Your task to perform on an android device: open app "Skype" Image 0: 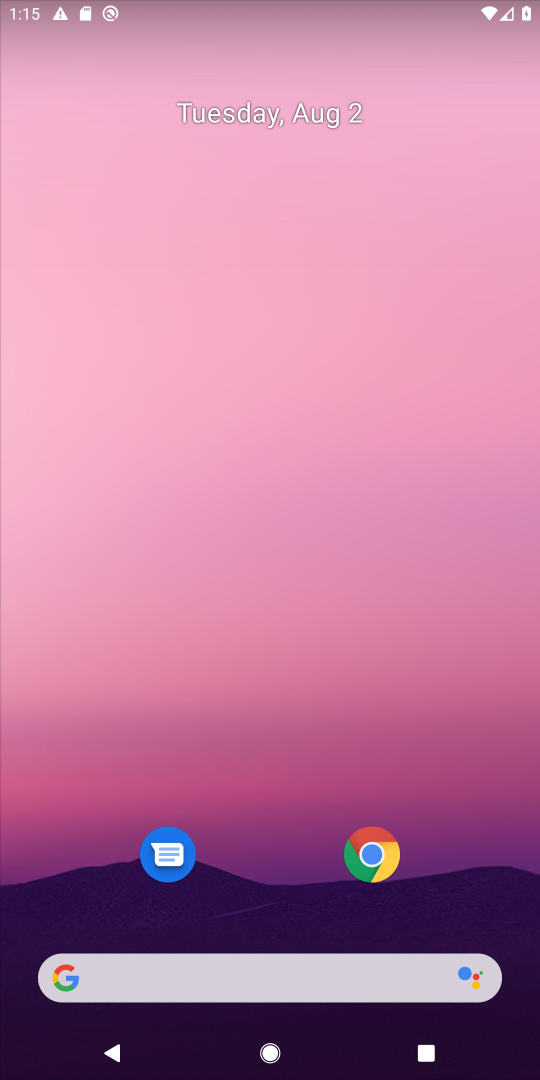
Step 0: drag from (320, 1058) to (406, 285)
Your task to perform on an android device: open app "Skype" Image 1: 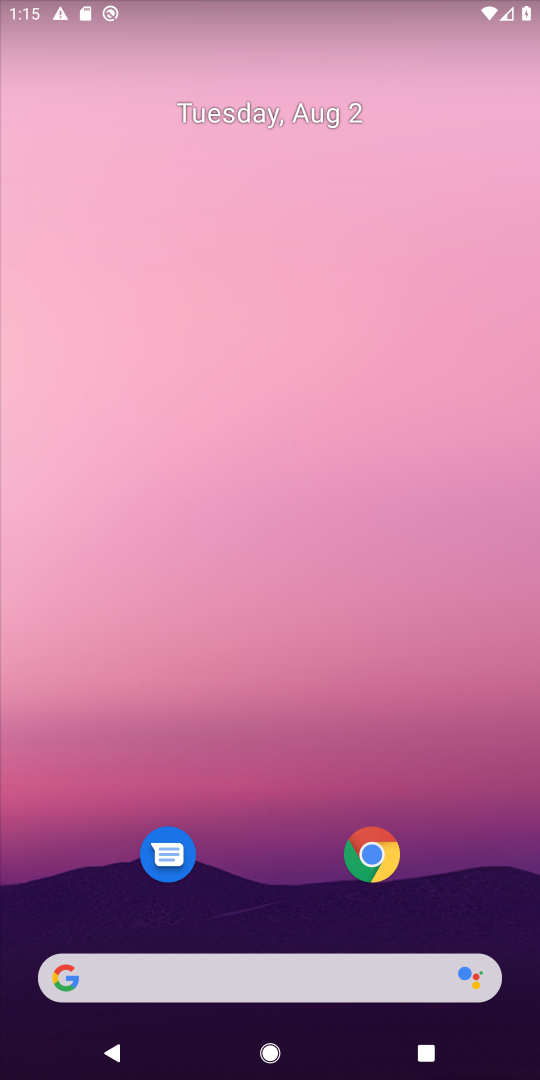
Step 1: drag from (307, 1061) to (337, 193)
Your task to perform on an android device: open app "Skype" Image 2: 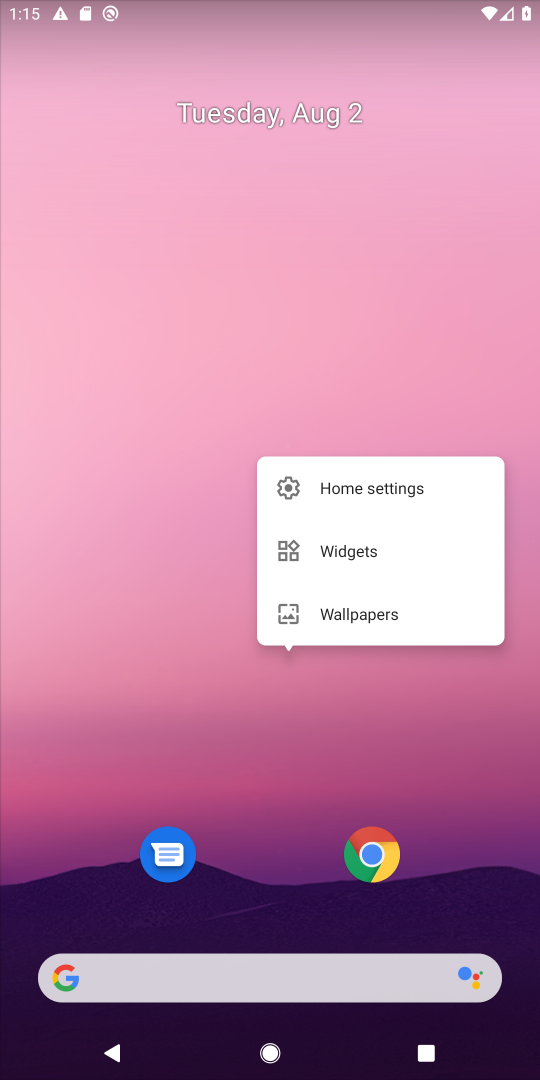
Step 2: click (296, 270)
Your task to perform on an android device: open app "Skype" Image 3: 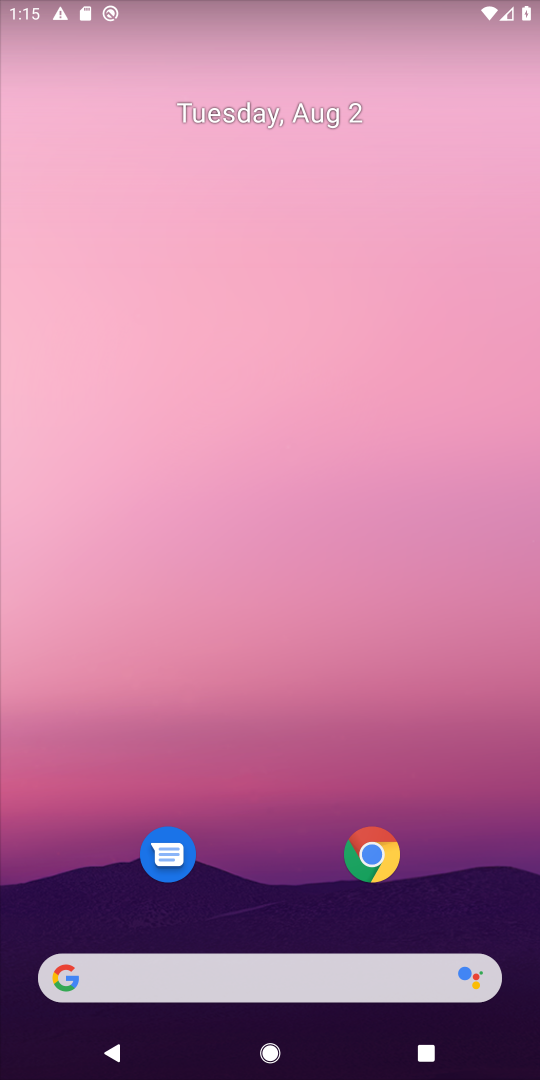
Step 3: drag from (316, 921) to (321, 18)
Your task to perform on an android device: open app "Skype" Image 4: 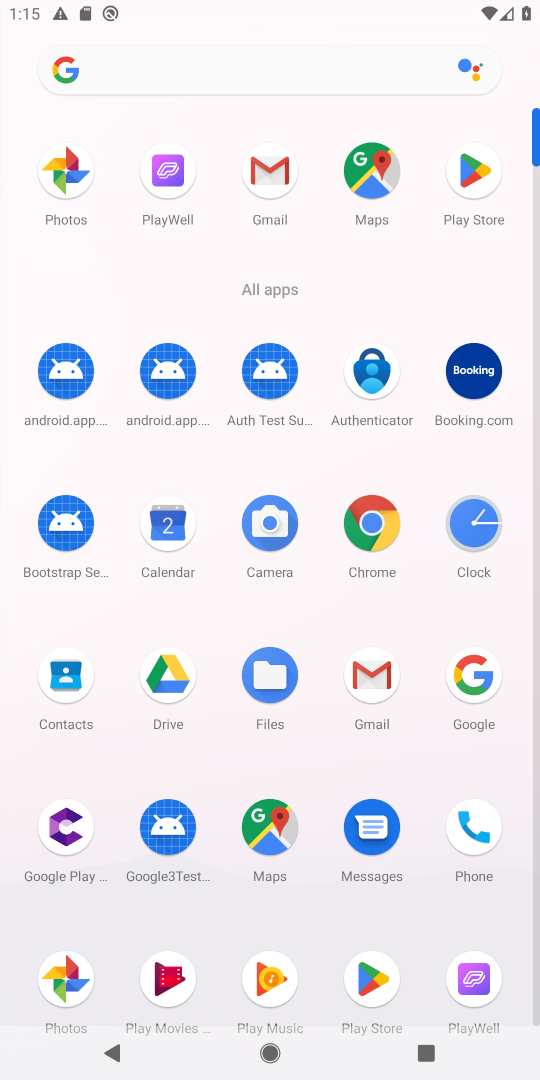
Step 4: click (473, 173)
Your task to perform on an android device: open app "Skype" Image 5: 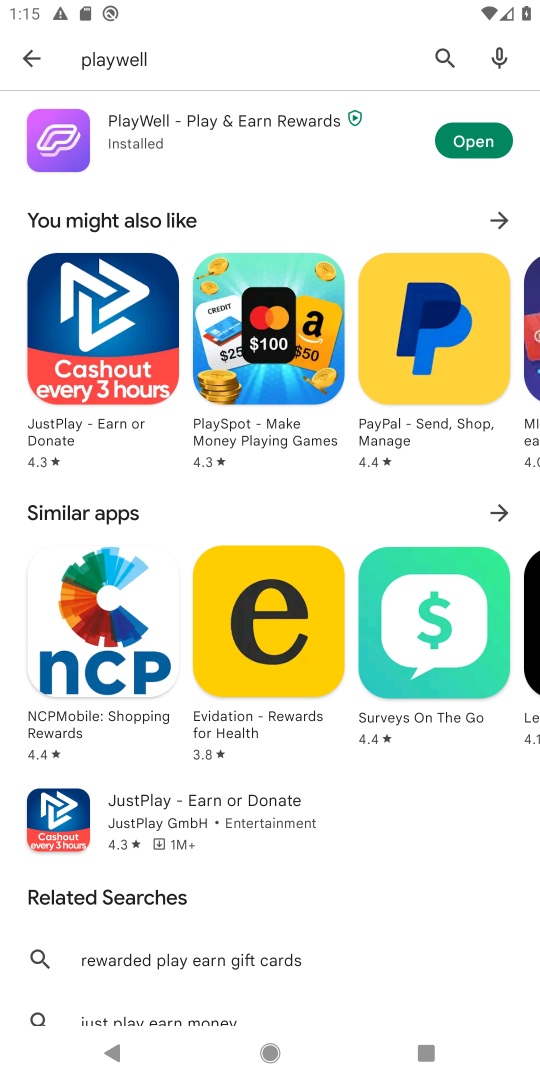
Step 5: click (437, 57)
Your task to perform on an android device: open app "Skype" Image 6: 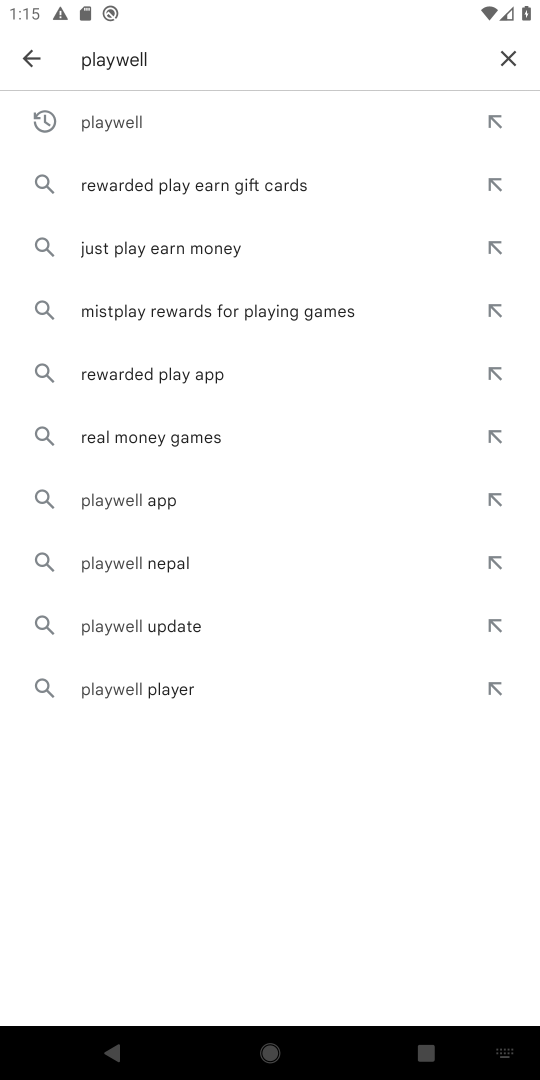
Step 6: click (507, 48)
Your task to perform on an android device: open app "Skype" Image 7: 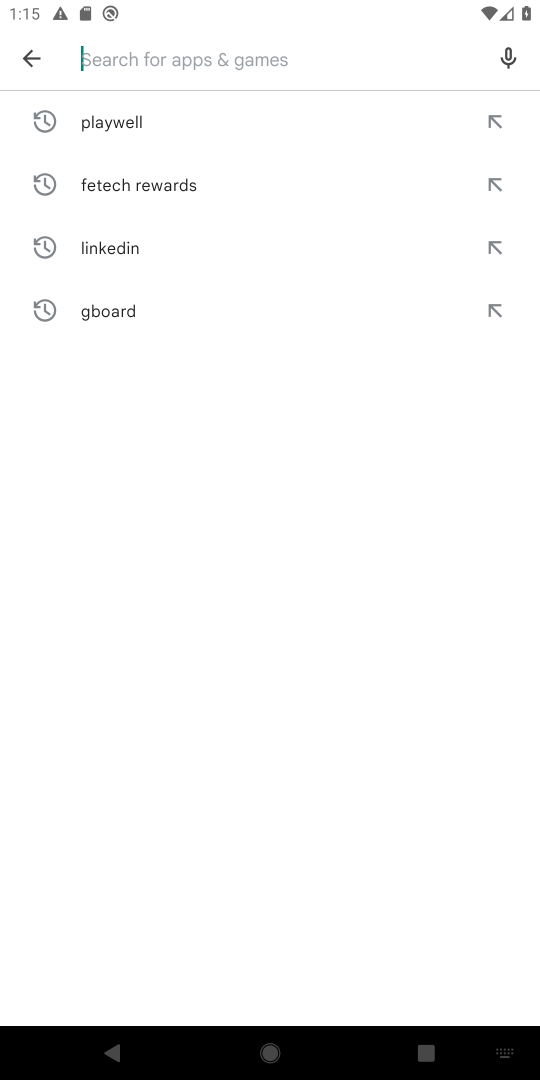
Step 7: type "Skype"
Your task to perform on an android device: open app "Skype" Image 8: 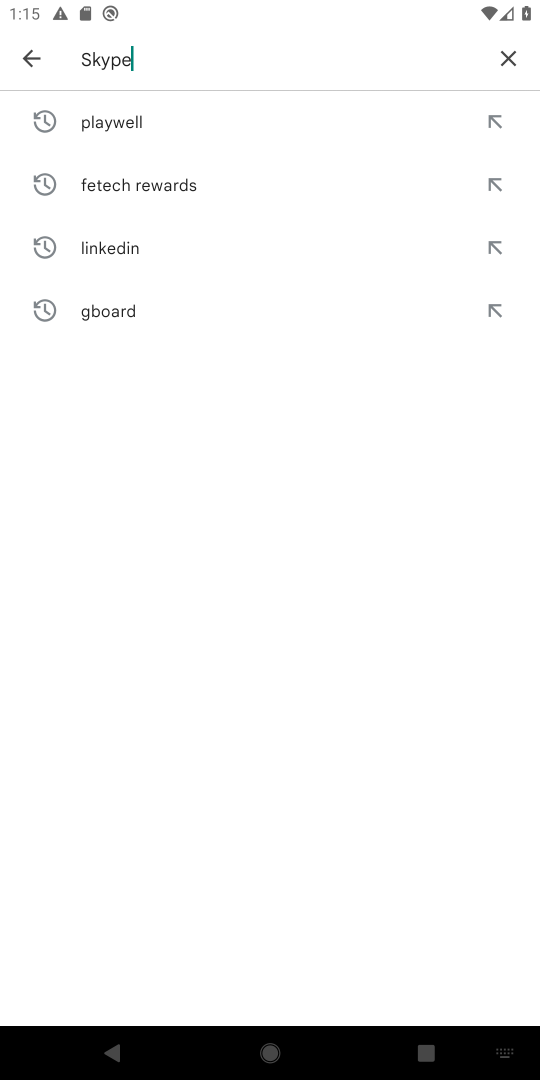
Step 8: type ""
Your task to perform on an android device: open app "Skype" Image 9: 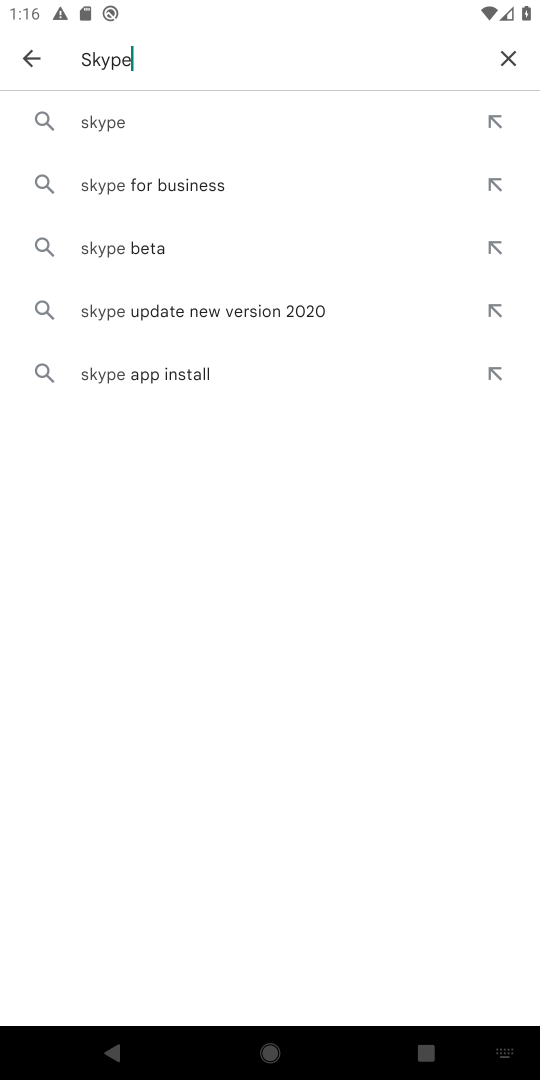
Step 9: click (99, 120)
Your task to perform on an android device: open app "Skype" Image 10: 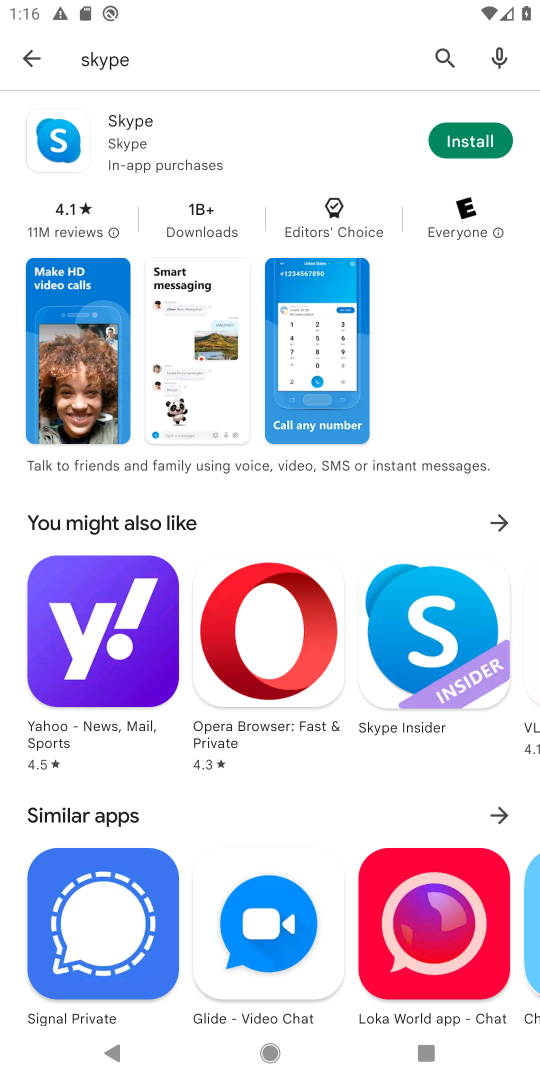
Step 10: task complete